Your task to perform on an android device: toggle pop-ups in chrome Image 0: 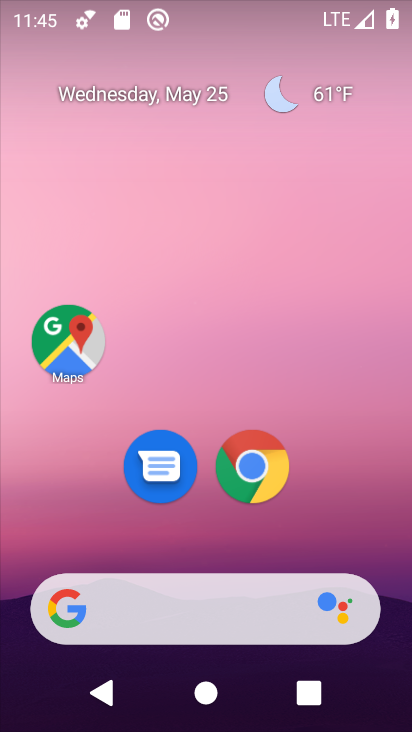
Step 0: click (261, 483)
Your task to perform on an android device: toggle pop-ups in chrome Image 1: 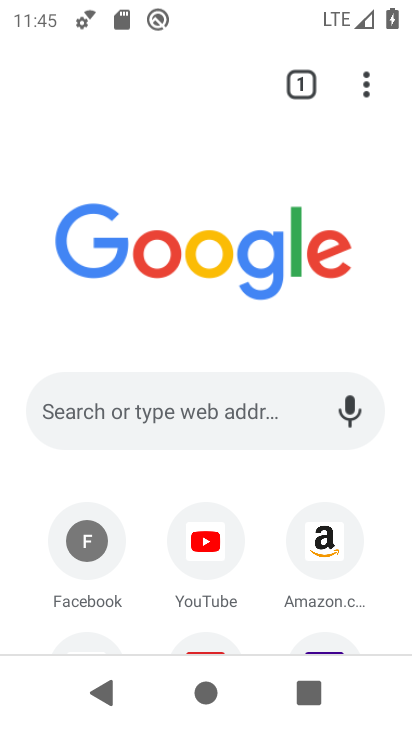
Step 1: click (362, 81)
Your task to perform on an android device: toggle pop-ups in chrome Image 2: 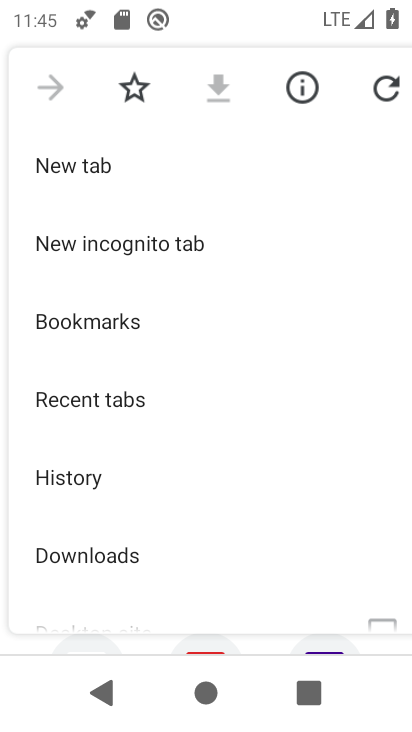
Step 2: drag from (110, 581) to (140, 217)
Your task to perform on an android device: toggle pop-ups in chrome Image 3: 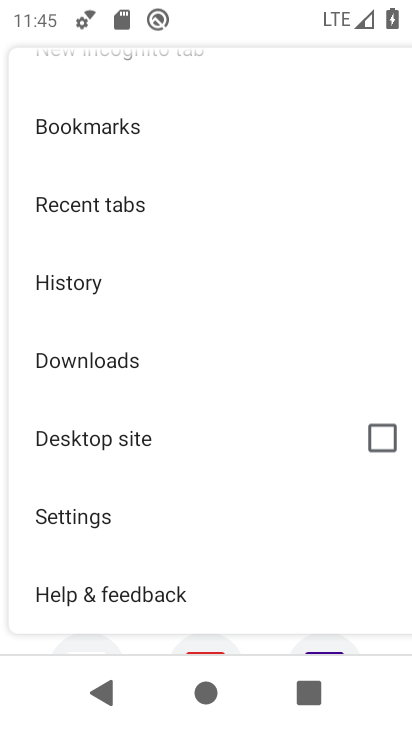
Step 3: click (74, 524)
Your task to perform on an android device: toggle pop-ups in chrome Image 4: 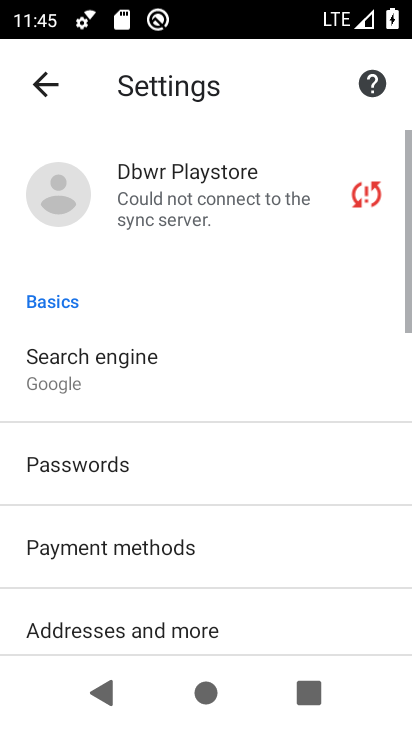
Step 4: drag from (129, 564) to (199, 171)
Your task to perform on an android device: toggle pop-ups in chrome Image 5: 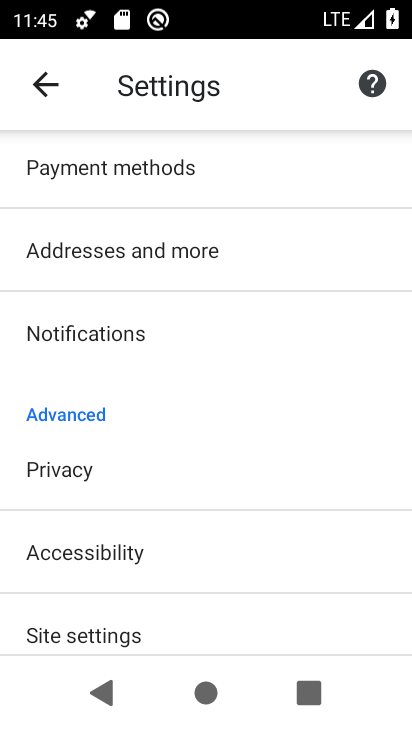
Step 5: click (93, 618)
Your task to perform on an android device: toggle pop-ups in chrome Image 6: 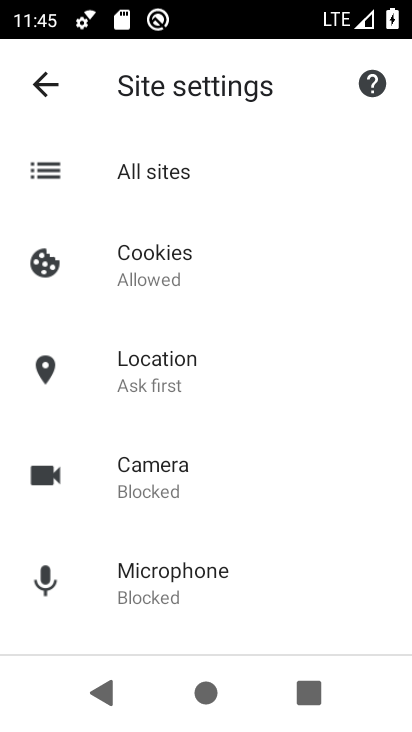
Step 6: drag from (189, 526) to (272, 103)
Your task to perform on an android device: toggle pop-ups in chrome Image 7: 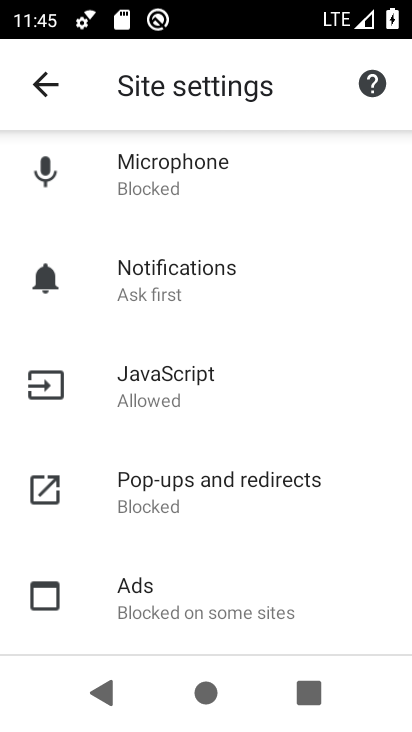
Step 7: click (195, 492)
Your task to perform on an android device: toggle pop-ups in chrome Image 8: 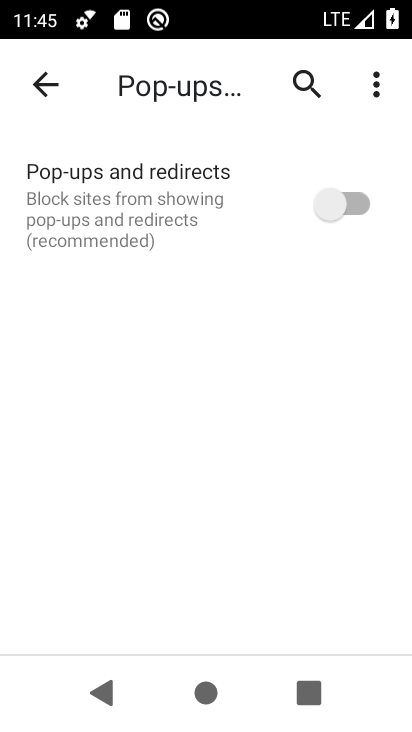
Step 8: click (360, 196)
Your task to perform on an android device: toggle pop-ups in chrome Image 9: 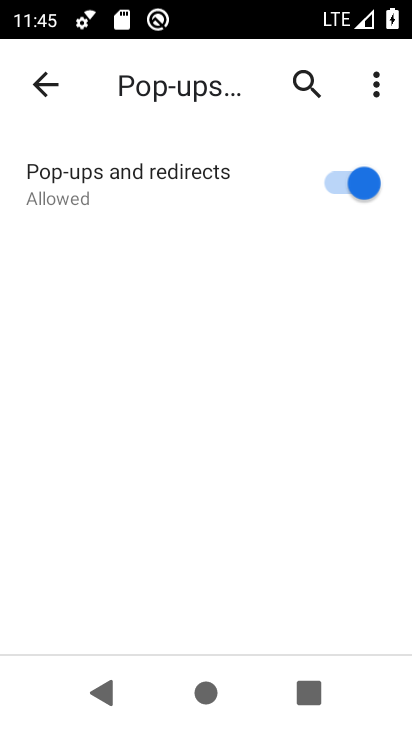
Step 9: task complete